Your task to perform on an android device: change keyboard looks Image 0: 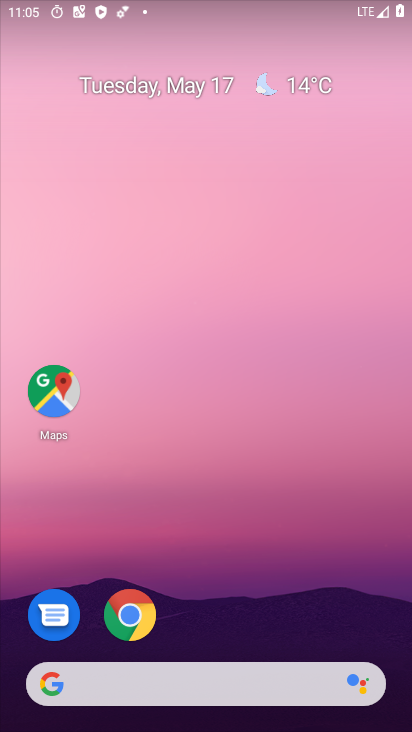
Step 0: press home button
Your task to perform on an android device: change keyboard looks Image 1: 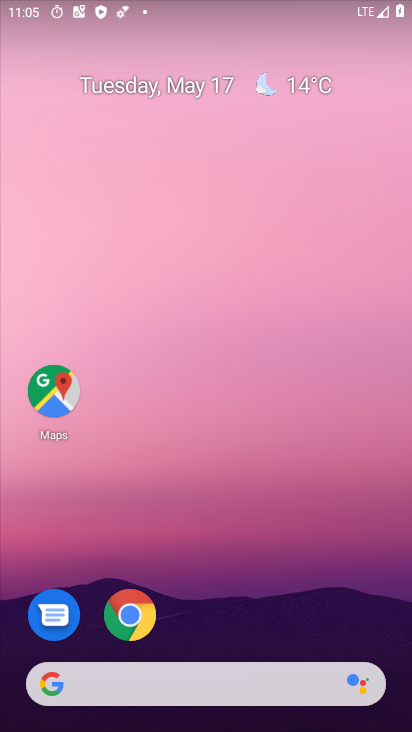
Step 1: drag from (168, 687) to (286, 199)
Your task to perform on an android device: change keyboard looks Image 2: 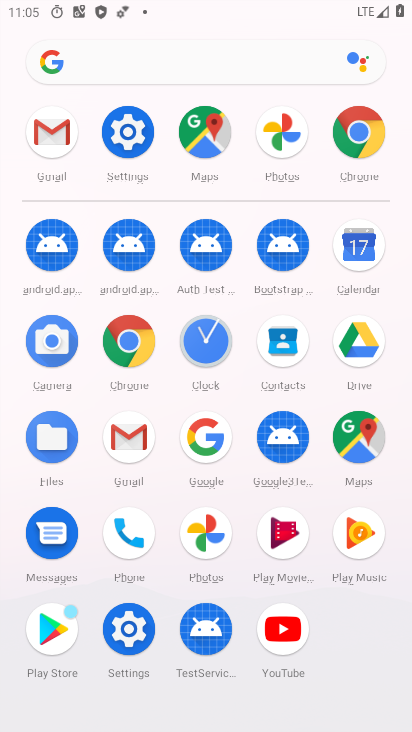
Step 2: click (127, 145)
Your task to perform on an android device: change keyboard looks Image 3: 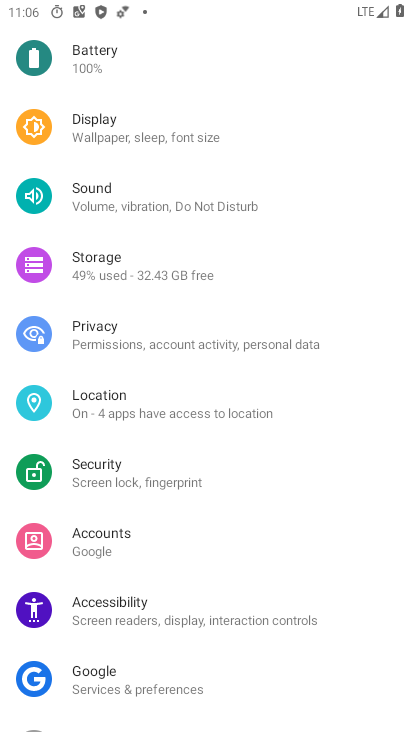
Step 3: drag from (201, 560) to (324, 196)
Your task to perform on an android device: change keyboard looks Image 4: 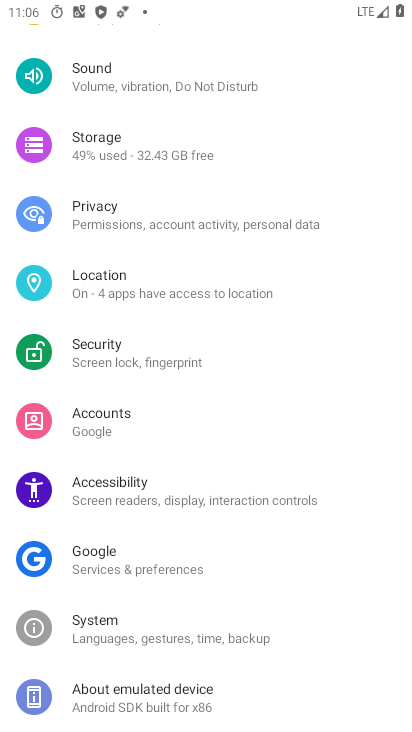
Step 4: click (145, 629)
Your task to perform on an android device: change keyboard looks Image 5: 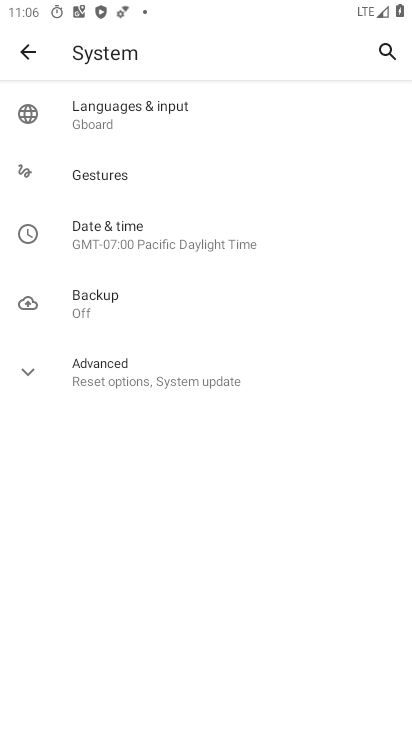
Step 5: click (129, 114)
Your task to perform on an android device: change keyboard looks Image 6: 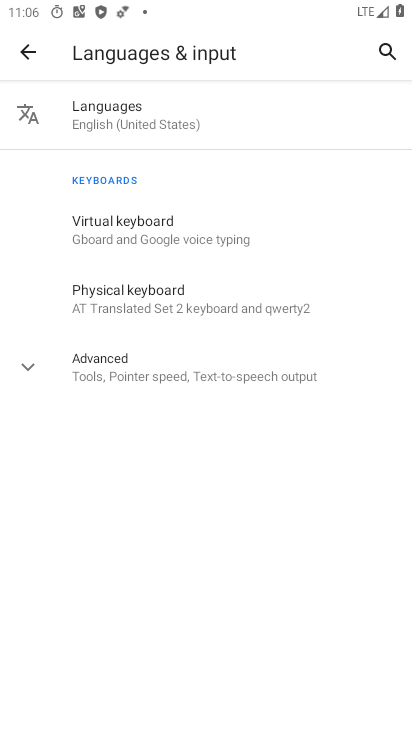
Step 6: click (142, 227)
Your task to perform on an android device: change keyboard looks Image 7: 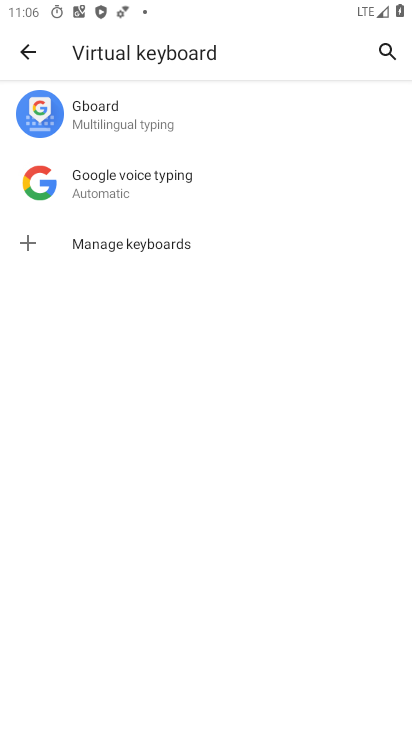
Step 7: click (150, 108)
Your task to perform on an android device: change keyboard looks Image 8: 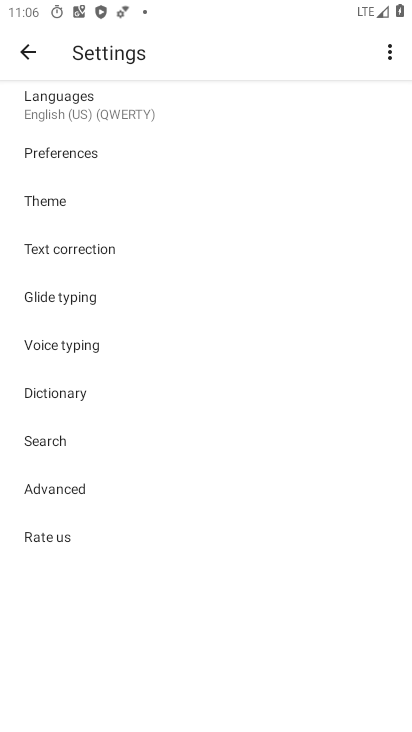
Step 8: click (48, 200)
Your task to perform on an android device: change keyboard looks Image 9: 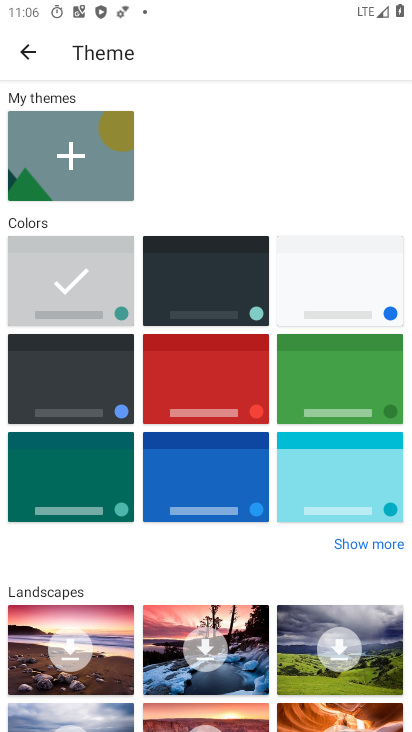
Step 9: click (77, 385)
Your task to perform on an android device: change keyboard looks Image 10: 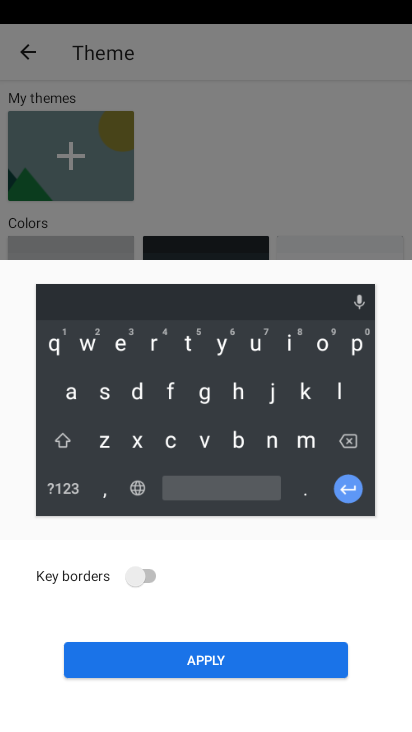
Step 10: click (197, 665)
Your task to perform on an android device: change keyboard looks Image 11: 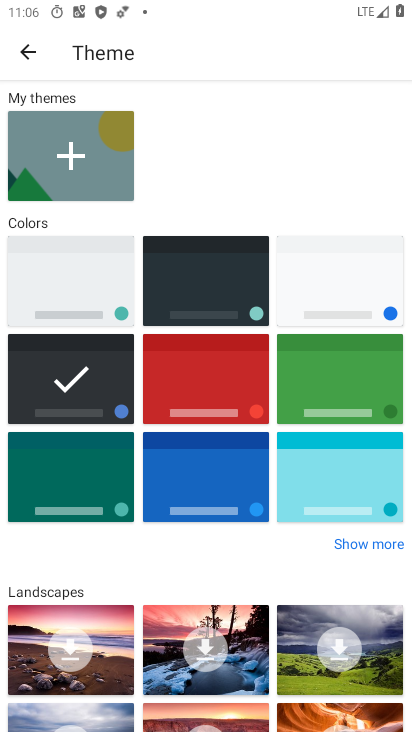
Step 11: task complete